Your task to perform on an android device: open wifi settings Image 0: 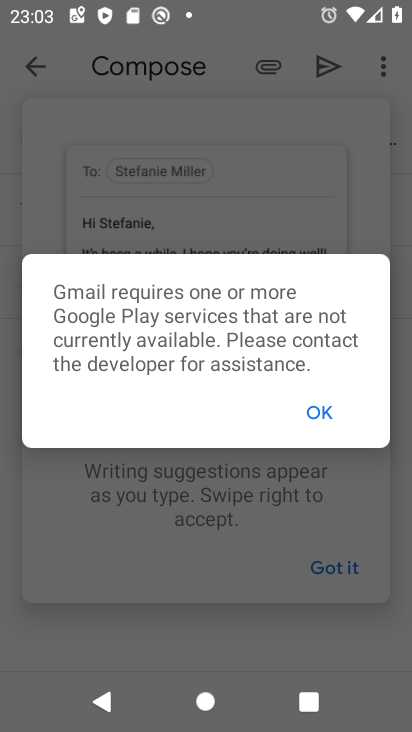
Step 0: press home button
Your task to perform on an android device: open wifi settings Image 1: 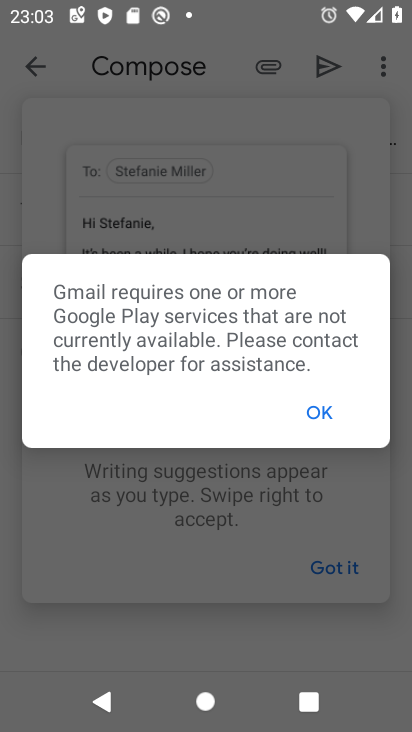
Step 1: press home button
Your task to perform on an android device: open wifi settings Image 2: 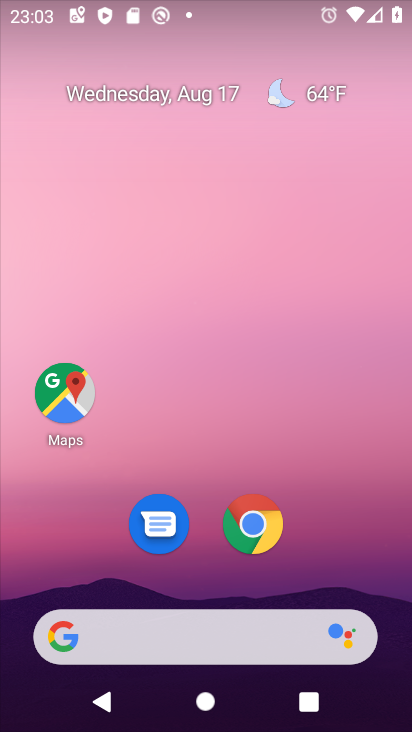
Step 2: drag from (314, 541) to (347, 5)
Your task to perform on an android device: open wifi settings Image 3: 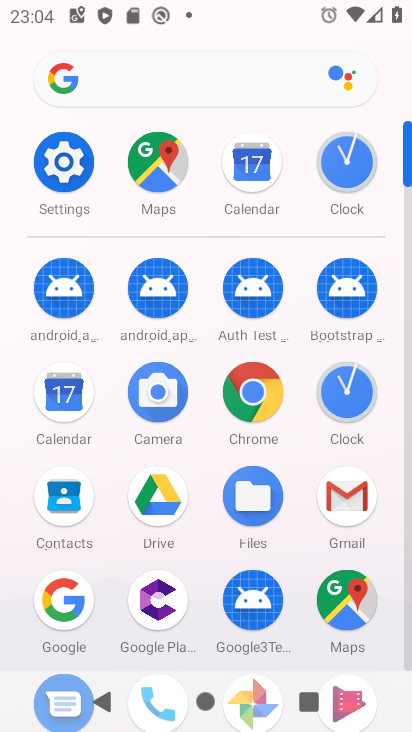
Step 3: click (70, 156)
Your task to perform on an android device: open wifi settings Image 4: 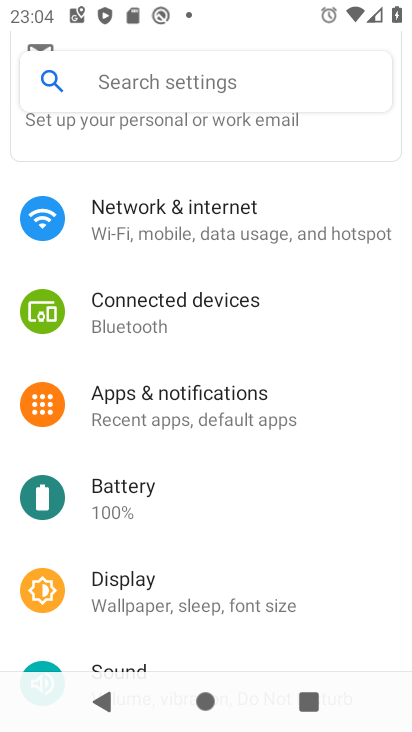
Step 4: click (215, 226)
Your task to perform on an android device: open wifi settings Image 5: 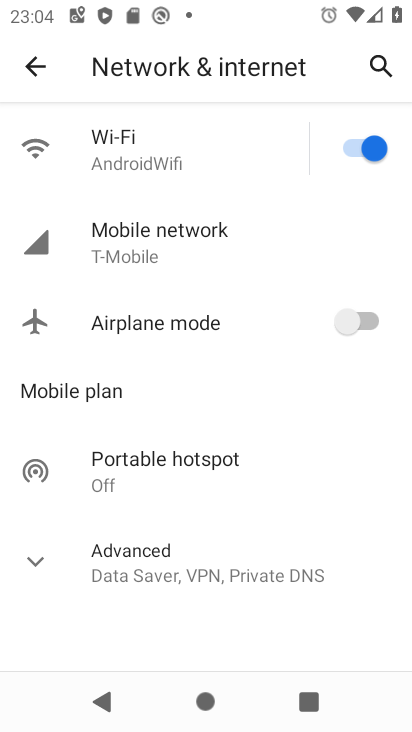
Step 5: click (146, 145)
Your task to perform on an android device: open wifi settings Image 6: 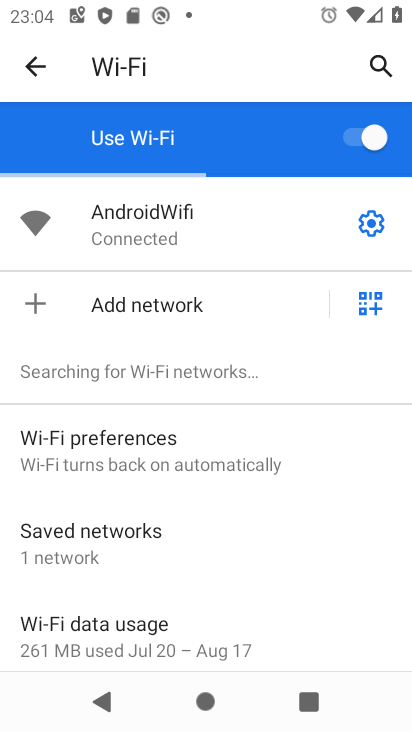
Step 6: task complete